Your task to perform on an android device: turn notification dots off Image 0: 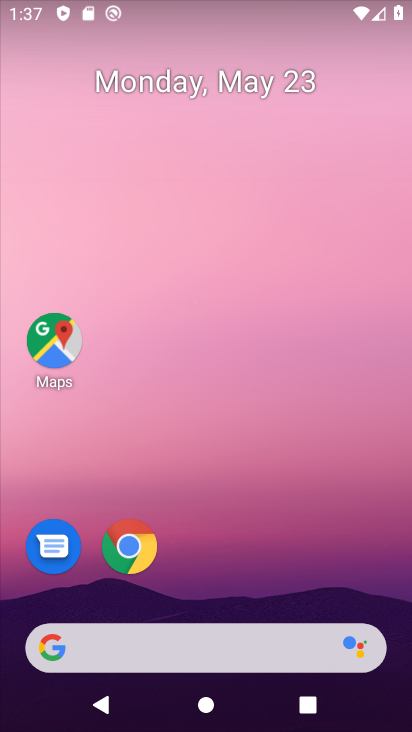
Step 0: click (176, 643)
Your task to perform on an android device: turn notification dots off Image 1: 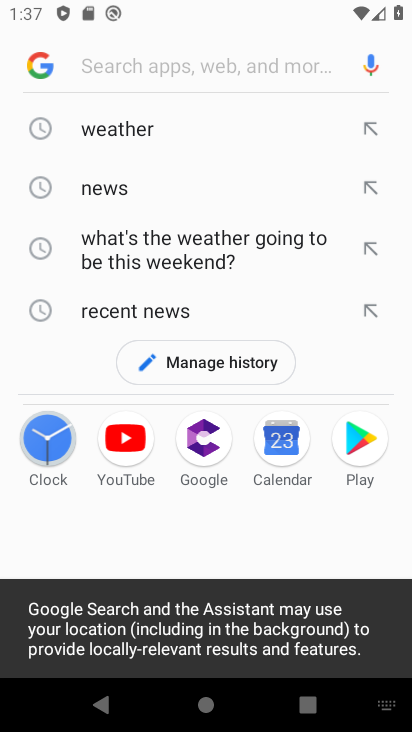
Step 1: press back button
Your task to perform on an android device: turn notification dots off Image 2: 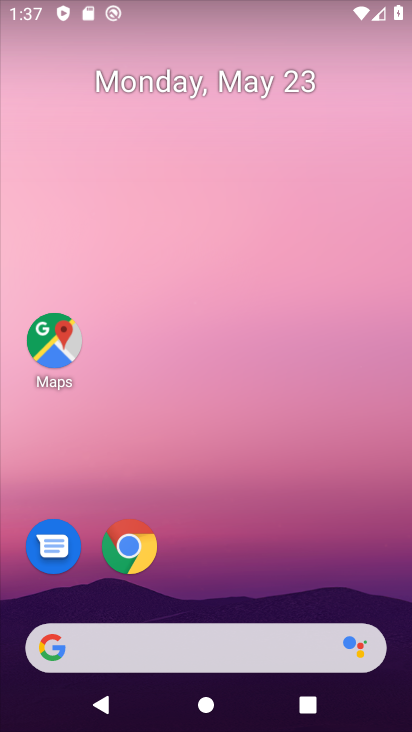
Step 2: drag from (193, 508) to (278, 52)
Your task to perform on an android device: turn notification dots off Image 3: 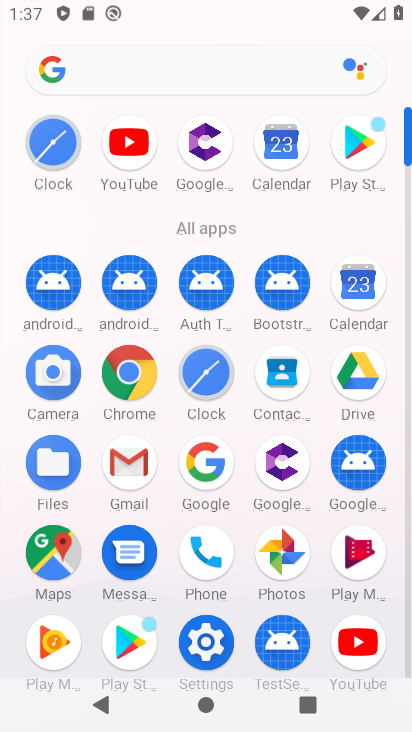
Step 3: drag from (188, 595) to (256, 241)
Your task to perform on an android device: turn notification dots off Image 4: 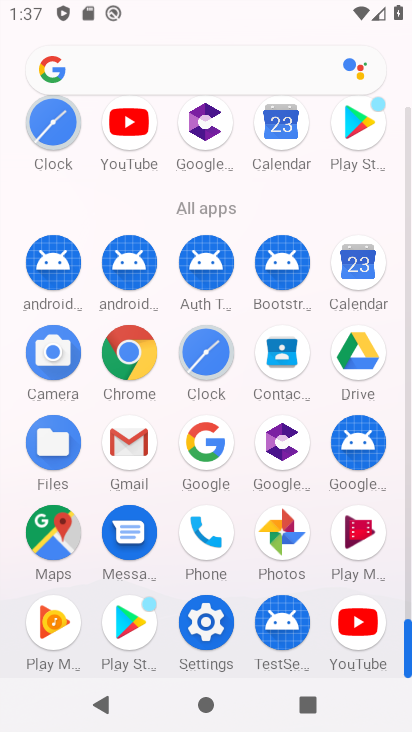
Step 4: click (204, 603)
Your task to perform on an android device: turn notification dots off Image 5: 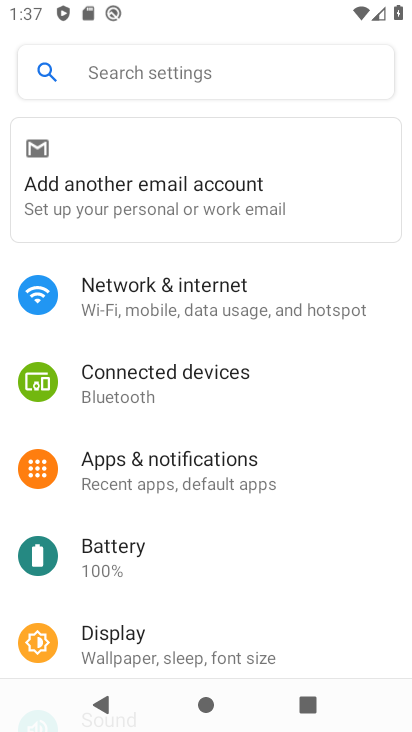
Step 5: click (215, 466)
Your task to perform on an android device: turn notification dots off Image 6: 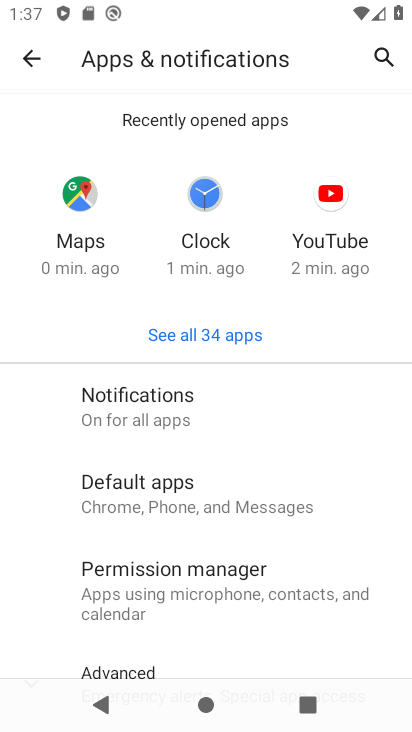
Step 6: click (192, 411)
Your task to perform on an android device: turn notification dots off Image 7: 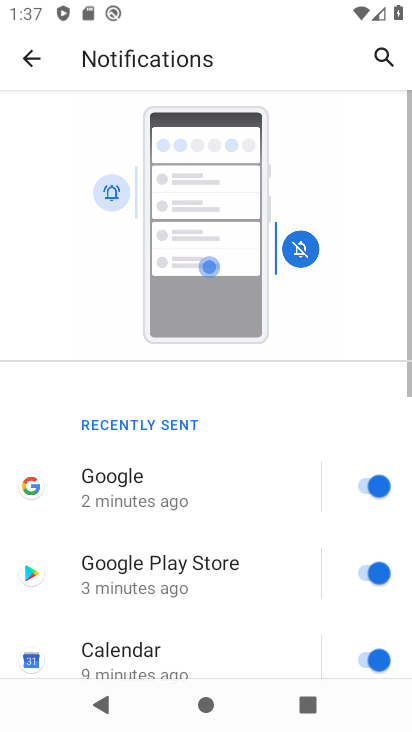
Step 7: drag from (234, 594) to (310, 157)
Your task to perform on an android device: turn notification dots off Image 8: 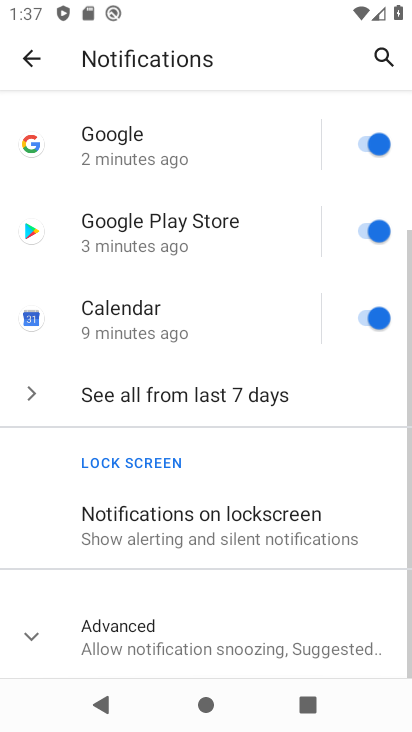
Step 8: drag from (197, 594) to (286, 119)
Your task to perform on an android device: turn notification dots off Image 9: 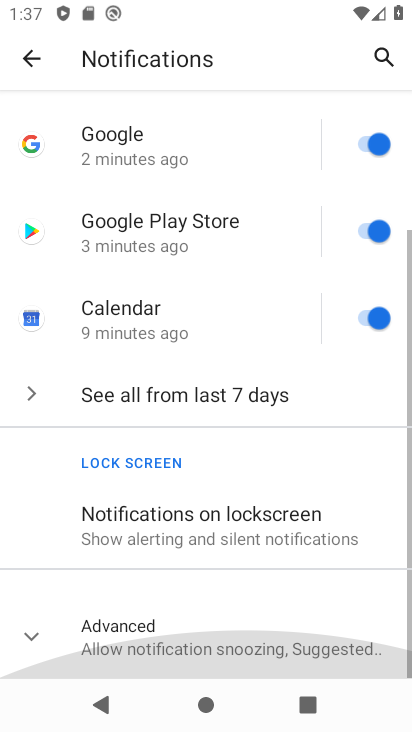
Step 9: click (199, 611)
Your task to perform on an android device: turn notification dots off Image 10: 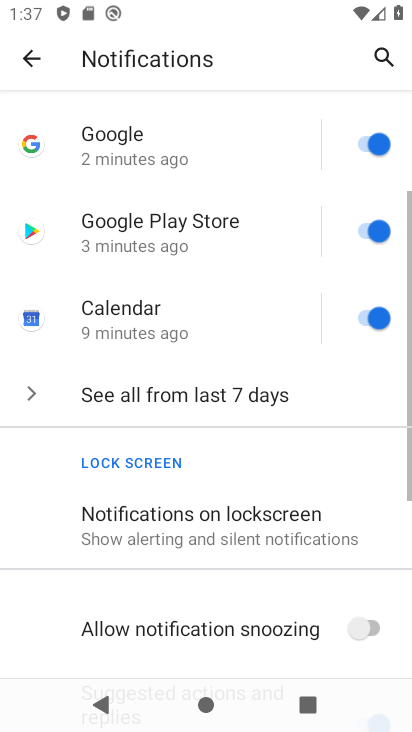
Step 10: drag from (213, 606) to (232, 185)
Your task to perform on an android device: turn notification dots off Image 11: 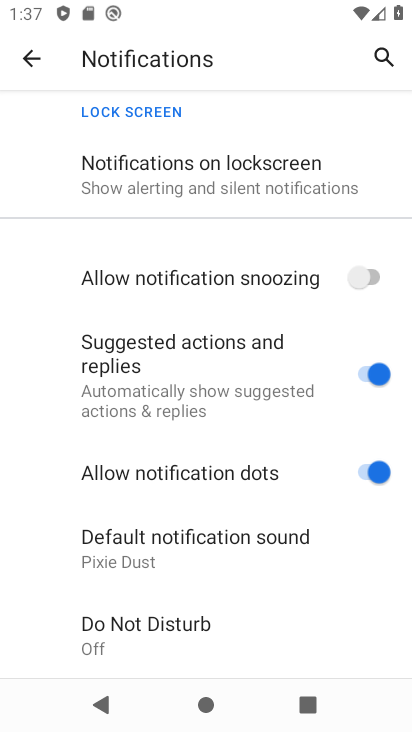
Step 11: click (376, 475)
Your task to perform on an android device: turn notification dots off Image 12: 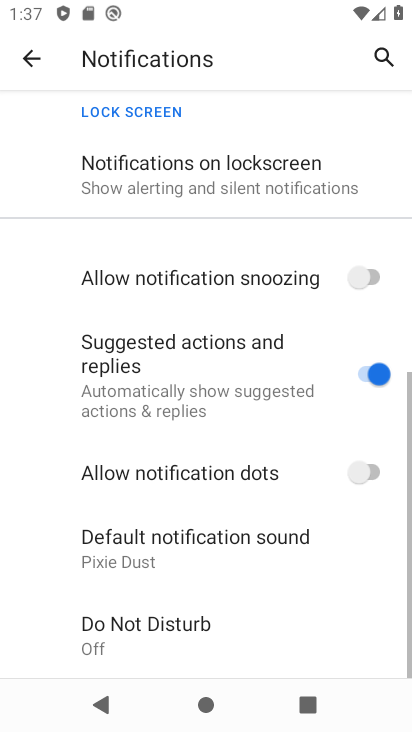
Step 12: task complete